Your task to perform on an android device: Open Chrome and go to the settings page Image 0: 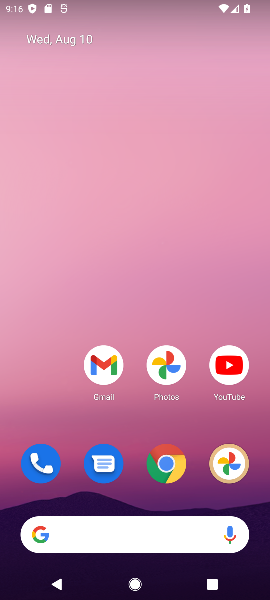
Step 0: click (161, 474)
Your task to perform on an android device: Open Chrome and go to the settings page Image 1: 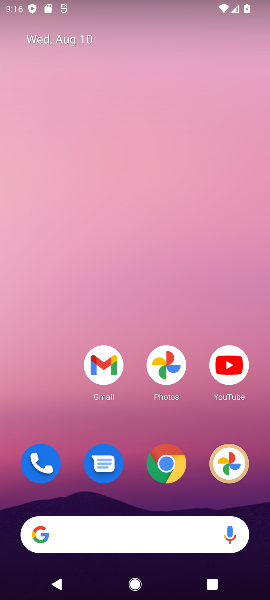
Step 1: click (161, 474)
Your task to perform on an android device: Open Chrome and go to the settings page Image 2: 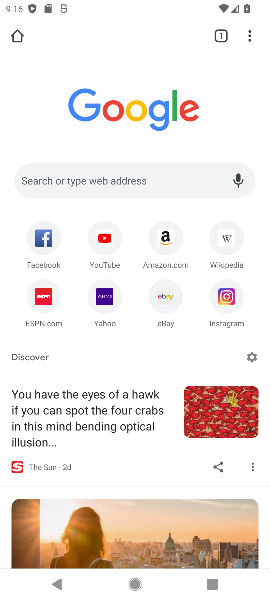
Step 2: click (253, 38)
Your task to perform on an android device: Open Chrome and go to the settings page Image 3: 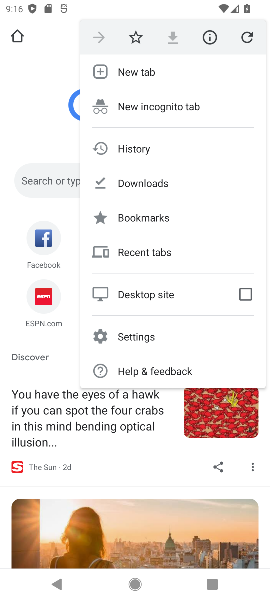
Step 3: click (135, 336)
Your task to perform on an android device: Open Chrome and go to the settings page Image 4: 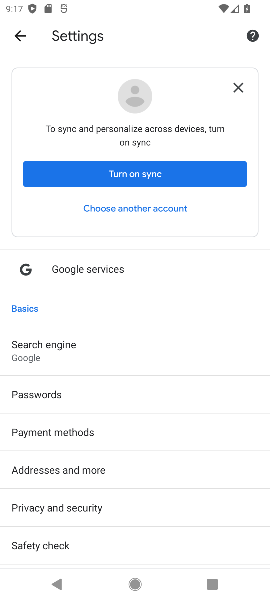
Step 4: task complete